Your task to perform on an android device: turn pop-ups on in chrome Image 0: 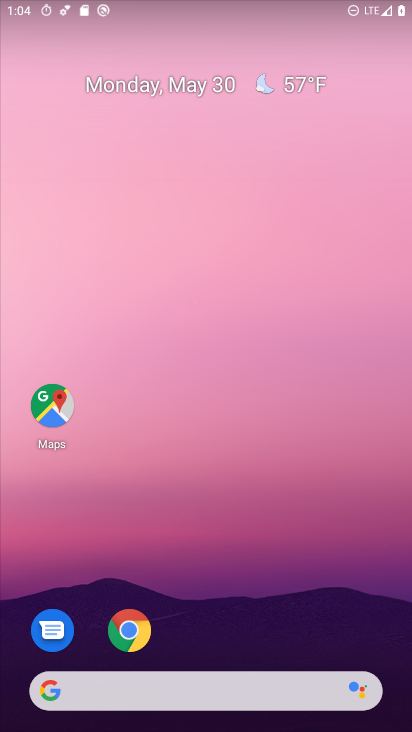
Step 0: drag from (284, 706) to (168, 105)
Your task to perform on an android device: turn pop-ups on in chrome Image 1: 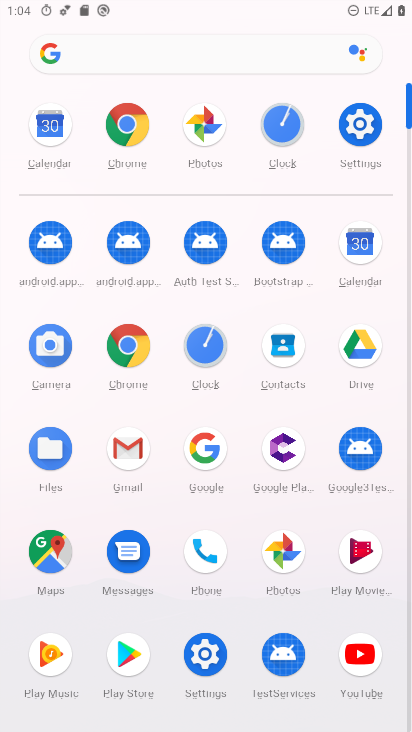
Step 1: click (105, 115)
Your task to perform on an android device: turn pop-ups on in chrome Image 2: 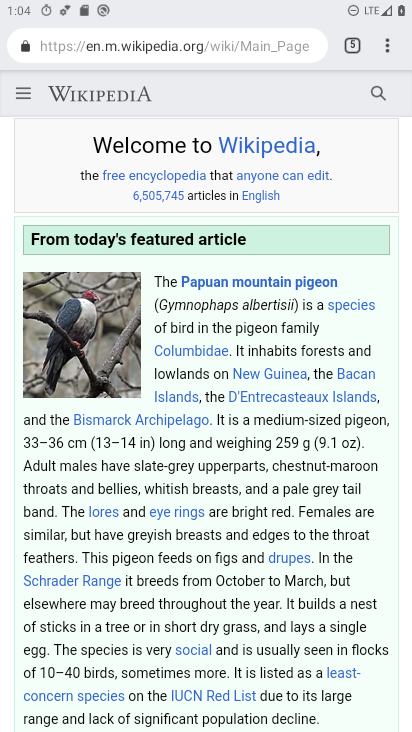
Step 2: click (382, 62)
Your task to perform on an android device: turn pop-ups on in chrome Image 3: 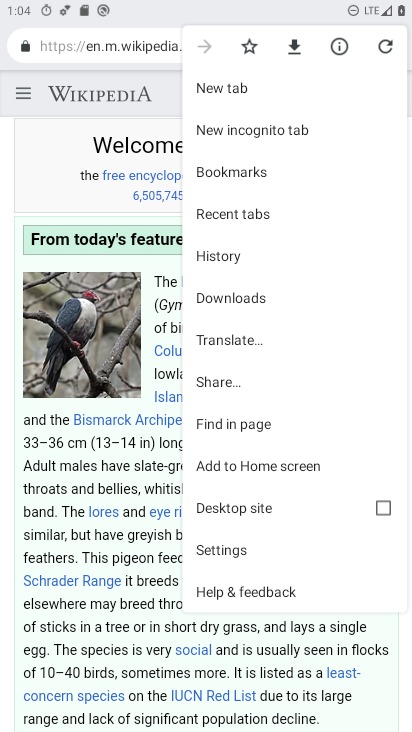
Step 3: click (233, 542)
Your task to perform on an android device: turn pop-ups on in chrome Image 4: 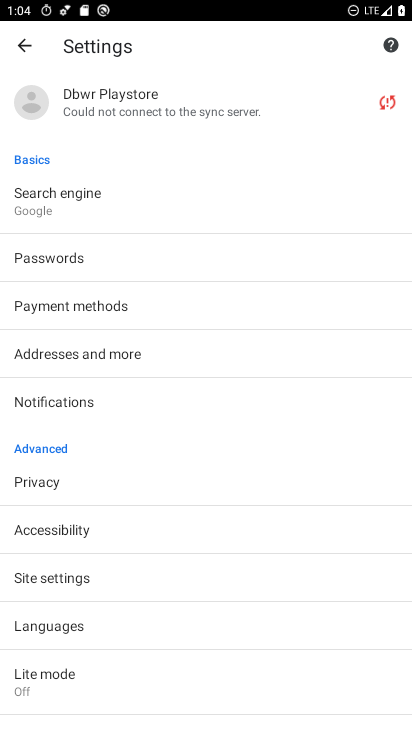
Step 4: click (95, 574)
Your task to perform on an android device: turn pop-ups on in chrome Image 5: 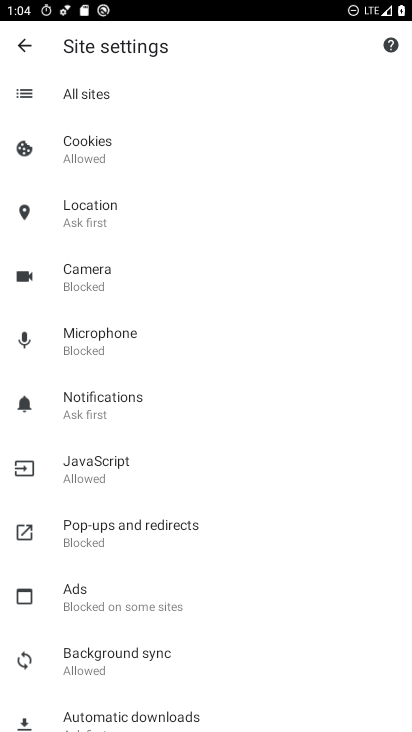
Step 5: click (106, 542)
Your task to perform on an android device: turn pop-ups on in chrome Image 6: 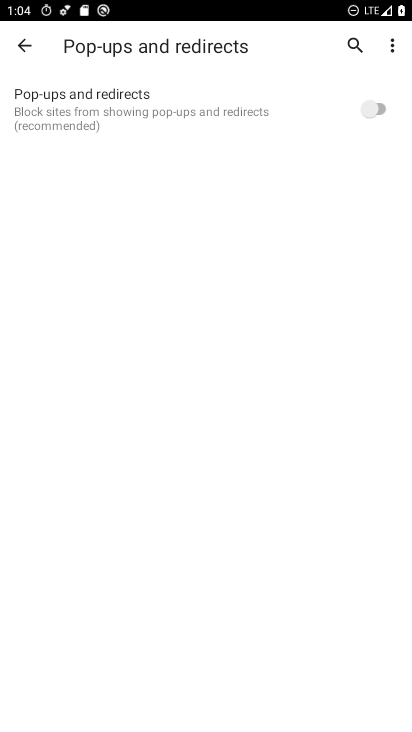
Step 6: click (375, 98)
Your task to perform on an android device: turn pop-ups on in chrome Image 7: 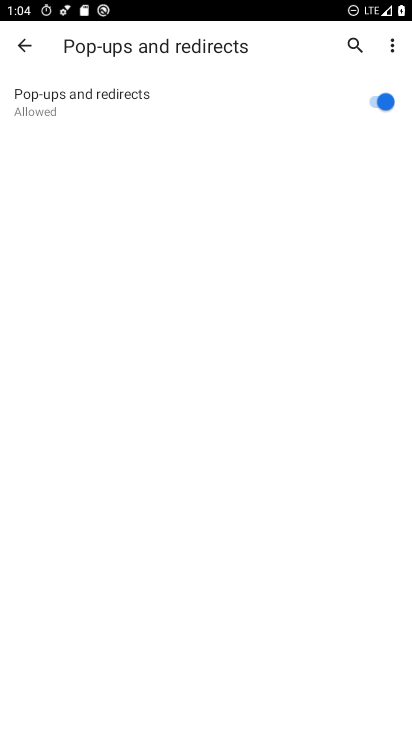
Step 7: task complete